Your task to perform on an android device: Open Youtube and go to "Your channel" Image 0: 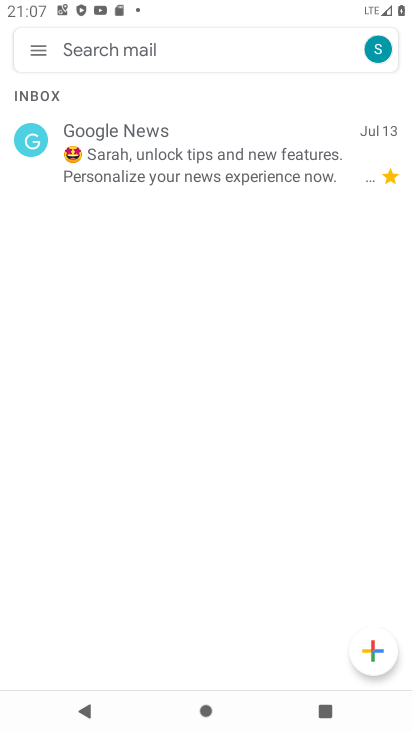
Step 0: press home button
Your task to perform on an android device: Open Youtube and go to "Your channel" Image 1: 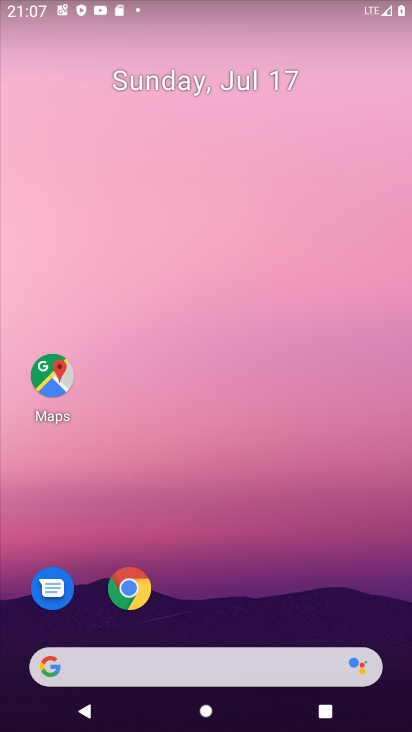
Step 1: drag from (293, 590) to (272, 159)
Your task to perform on an android device: Open Youtube and go to "Your channel" Image 2: 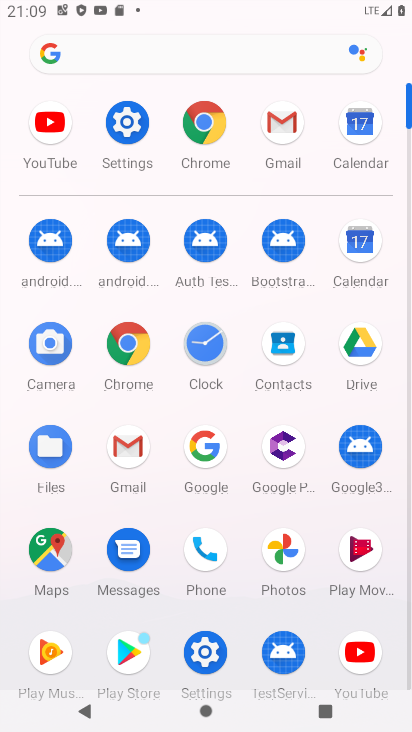
Step 2: click (364, 665)
Your task to perform on an android device: Open Youtube and go to "Your channel" Image 3: 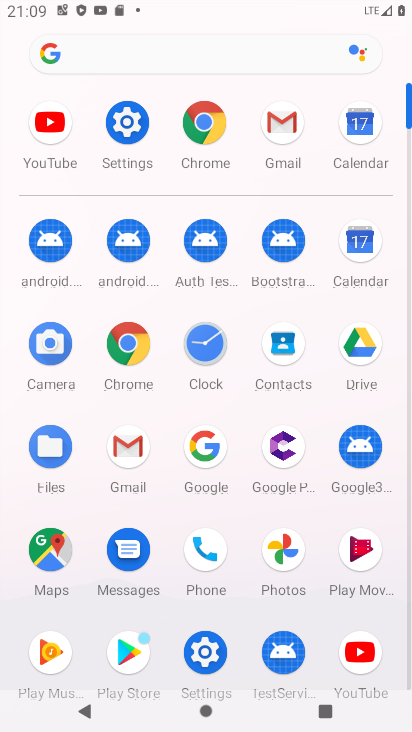
Step 3: click (366, 667)
Your task to perform on an android device: Open Youtube and go to "Your channel" Image 4: 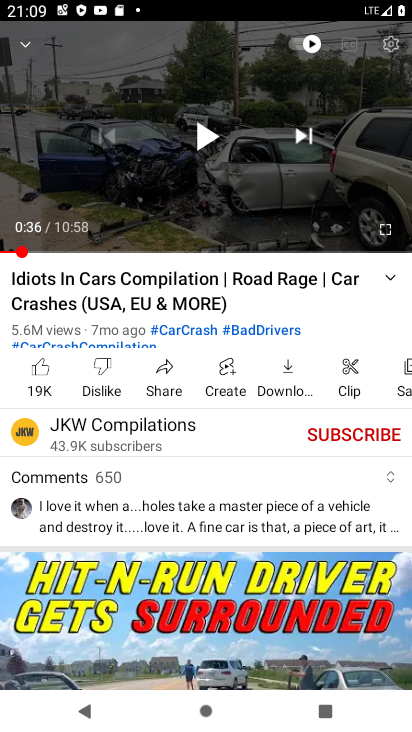
Step 4: drag from (177, 57) to (202, 583)
Your task to perform on an android device: Open Youtube and go to "Your channel" Image 5: 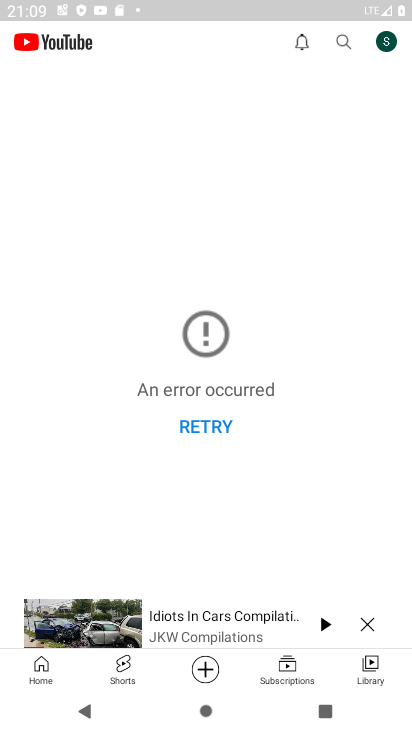
Step 5: click (360, 627)
Your task to perform on an android device: Open Youtube and go to "Your channel" Image 6: 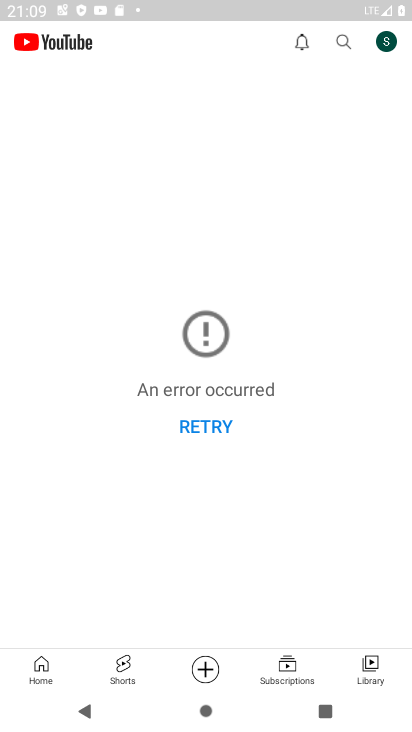
Step 6: click (381, 39)
Your task to perform on an android device: Open Youtube and go to "Your channel" Image 7: 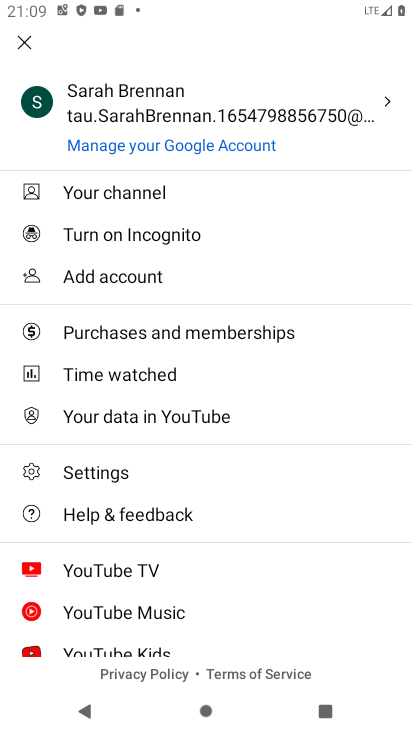
Step 7: click (118, 184)
Your task to perform on an android device: Open Youtube and go to "Your channel" Image 8: 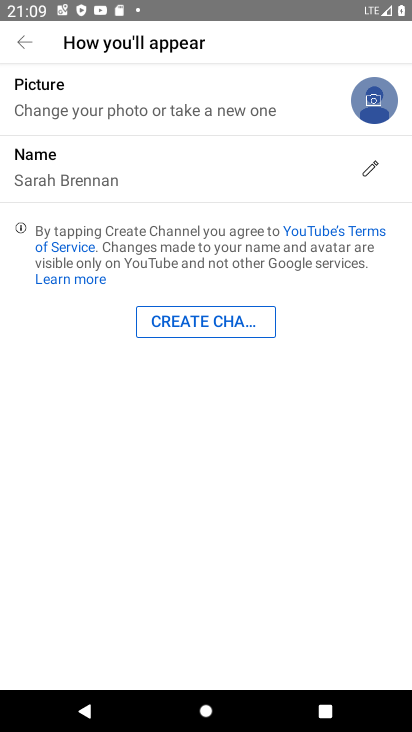
Step 8: task complete